Your task to perform on an android device: Search for "energizer triple a" on bestbuy.com, select the first entry, and add it to the cart. Image 0: 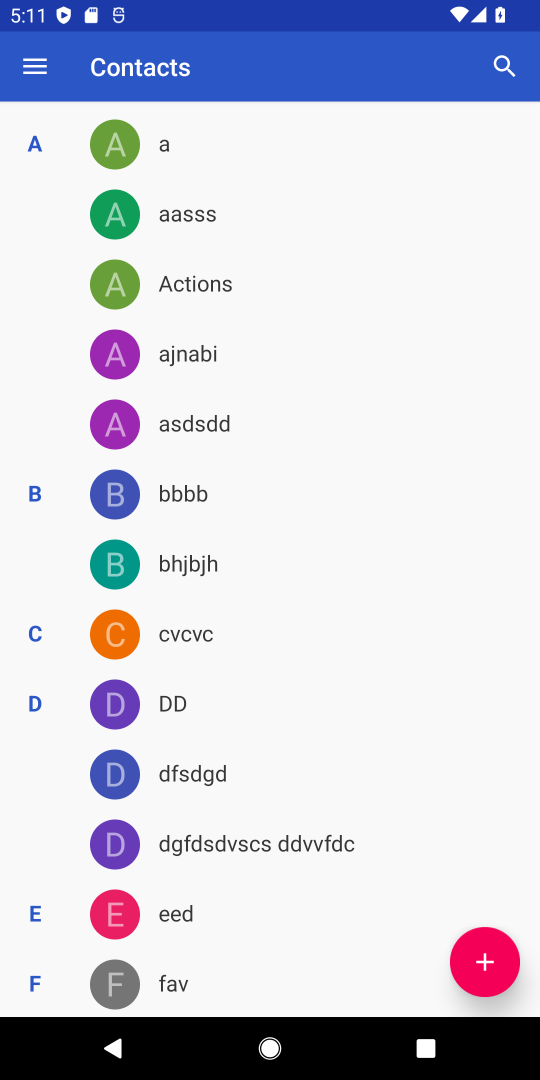
Step 0: press home button
Your task to perform on an android device: Search for "energizer triple a" on bestbuy.com, select the first entry, and add it to the cart. Image 1: 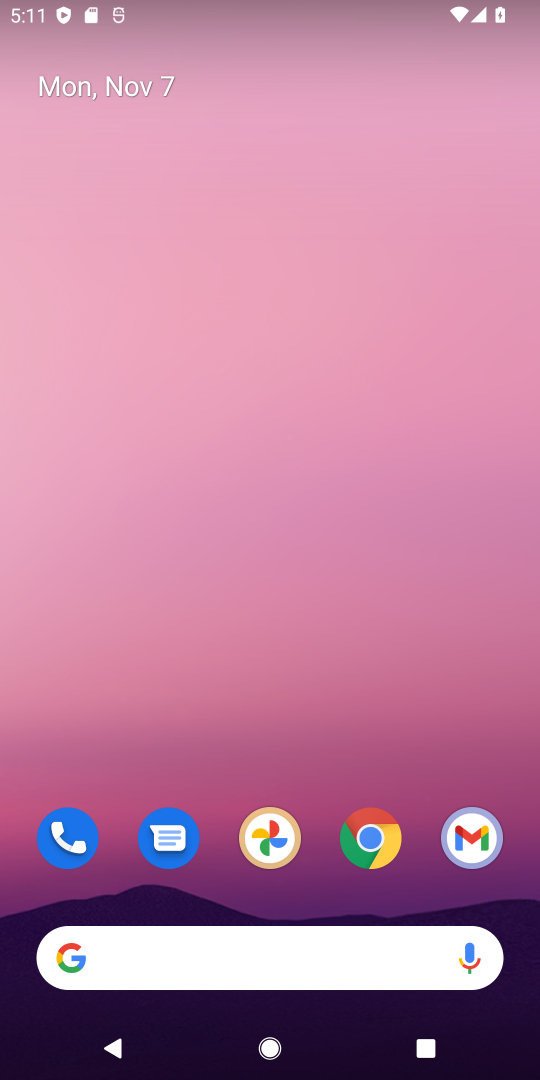
Step 1: click (365, 829)
Your task to perform on an android device: Search for "energizer triple a" on bestbuy.com, select the first entry, and add it to the cart. Image 2: 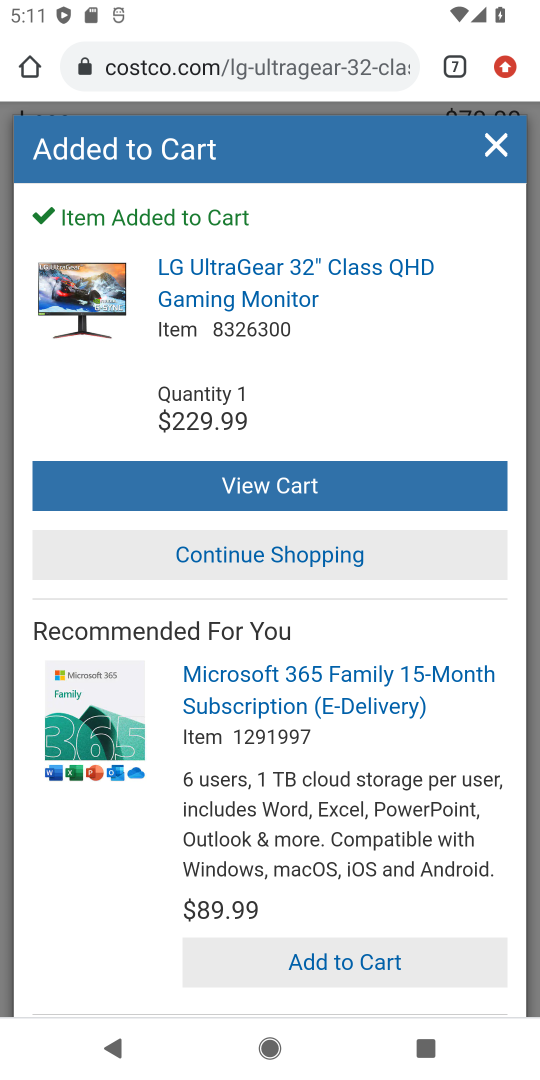
Step 2: click (453, 58)
Your task to perform on an android device: Search for "energizer triple a" on bestbuy.com, select the first entry, and add it to the cart. Image 3: 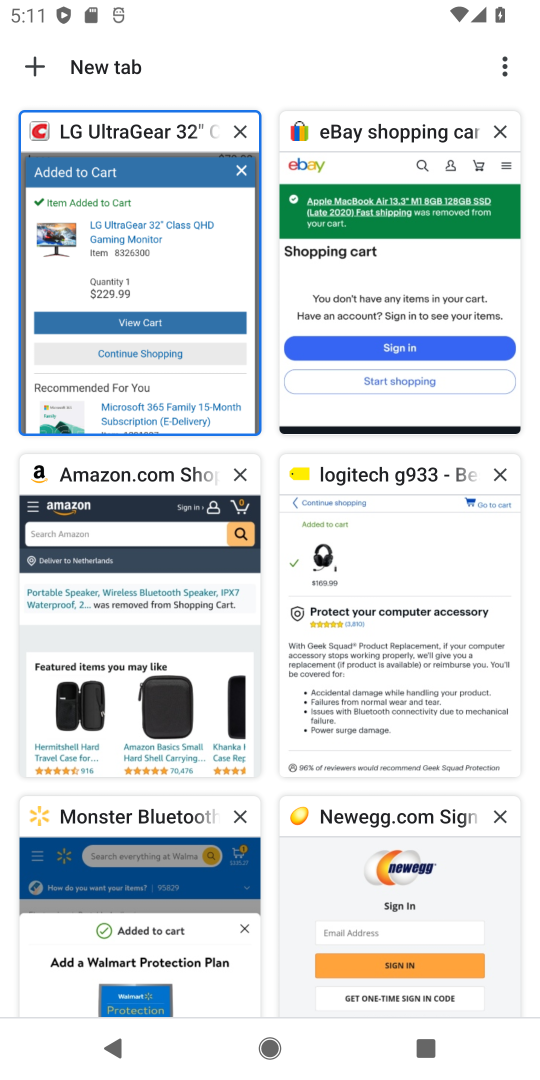
Step 3: click (438, 502)
Your task to perform on an android device: Search for "energizer triple a" on bestbuy.com, select the first entry, and add it to the cart. Image 4: 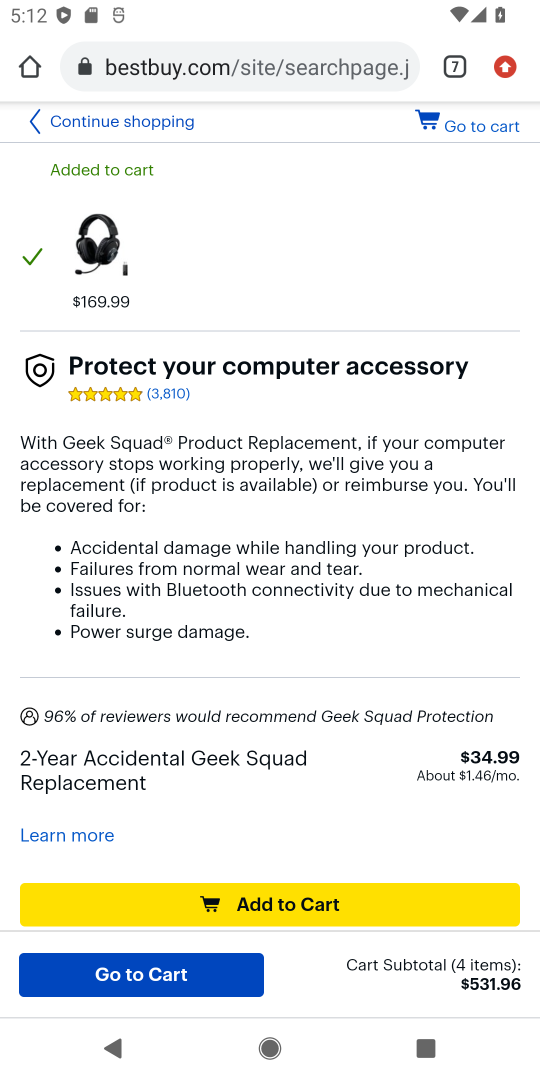
Step 4: click (93, 123)
Your task to perform on an android device: Search for "energizer triple a" on bestbuy.com, select the first entry, and add it to the cart. Image 5: 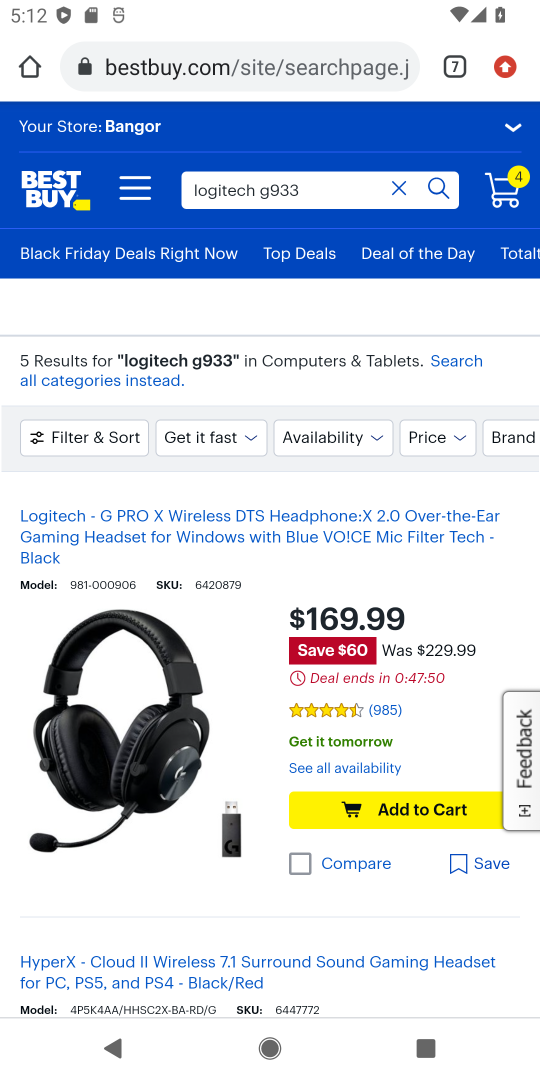
Step 5: click (393, 192)
Your task to perform on an android device: Search for "energizer triple a" on bestbuy.com, select the first entry, and add it to the cart. Image 6: 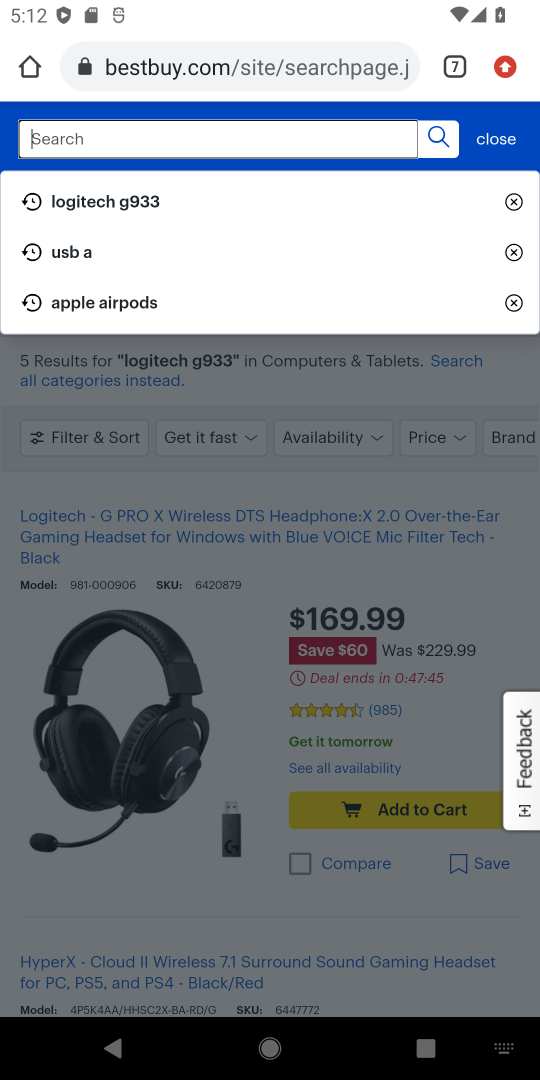
Step 6: type "energizer triple a"
Your task to perform on an android device: Search for "energizer triple a" on bestbuy.com, select the first entry, and add it to the cart. Image 7: 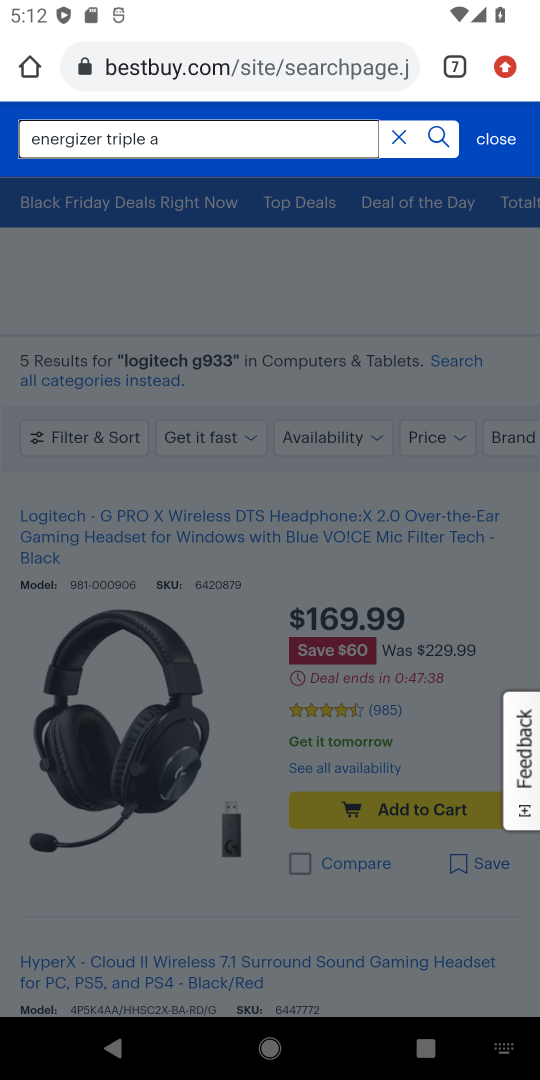
Step 7: click (437, 138)
Your task to perform on an android device: Search for "energizer triple a" on bestbuy.com, select the first entry, and add it to the cart. Image 8: 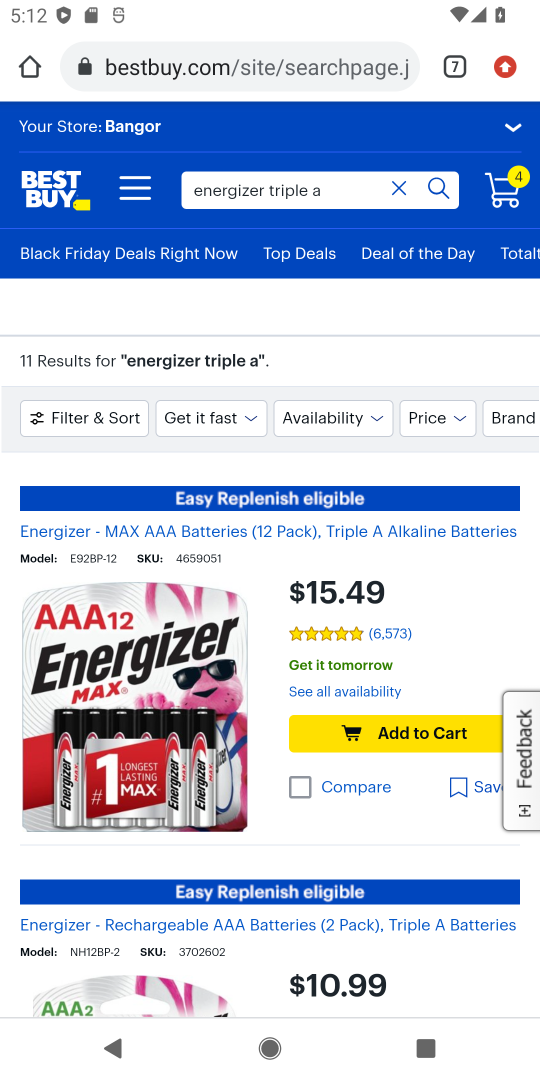
Step 8: click (402, 729)
Your task to perform on an android device: Search for "energizer triple a" on bestbuy.com, select the first entry, and add it to the cart. Image 9: 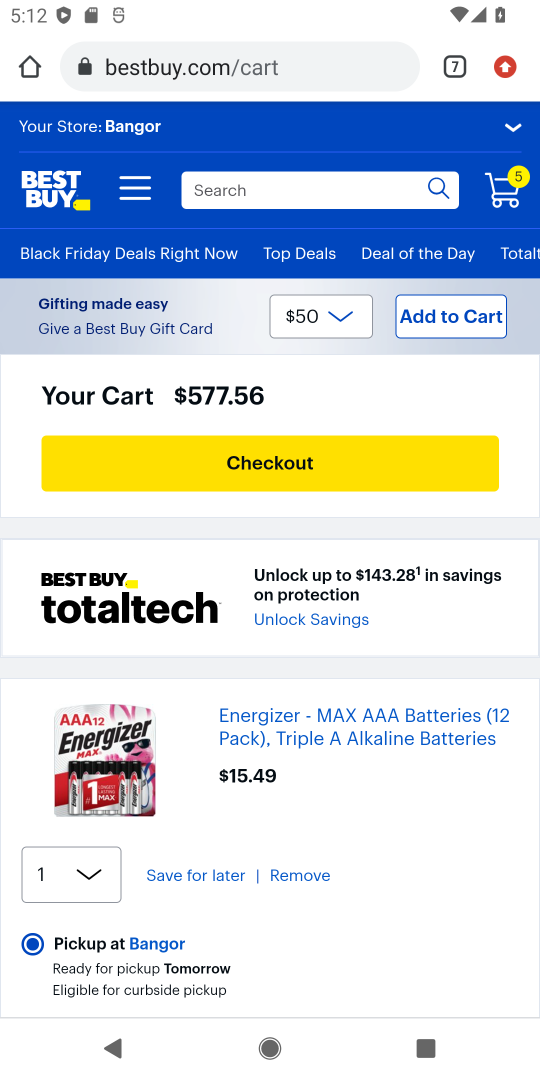
Step 9: task complete